Your task to perform on an android device: toggle javascript in the chrome app Image 0: 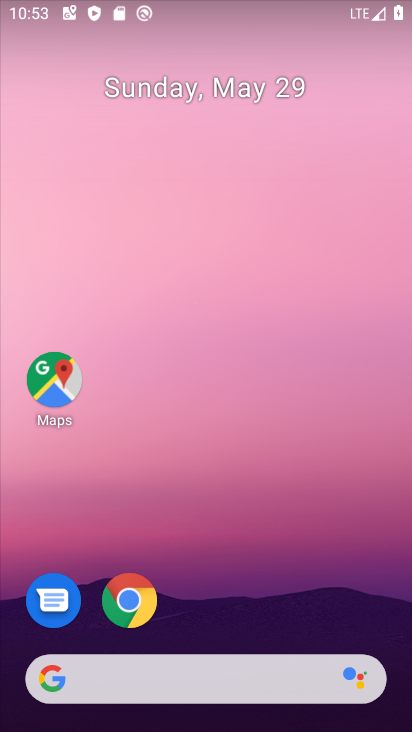
Step 0: click (152, 606)
Your task to perform on an android device: toggle javascript in the chrome app Image 1: 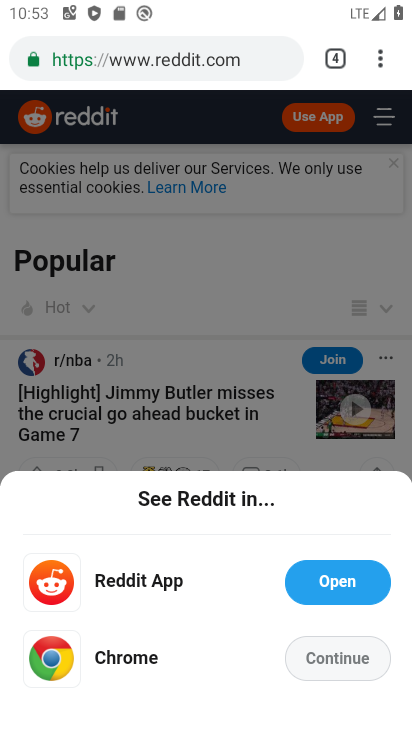
Step 1: drag from (380, 46) to (193, 622)
Your task to perform on an android device: toggle javascript in the chrome app Image 2: 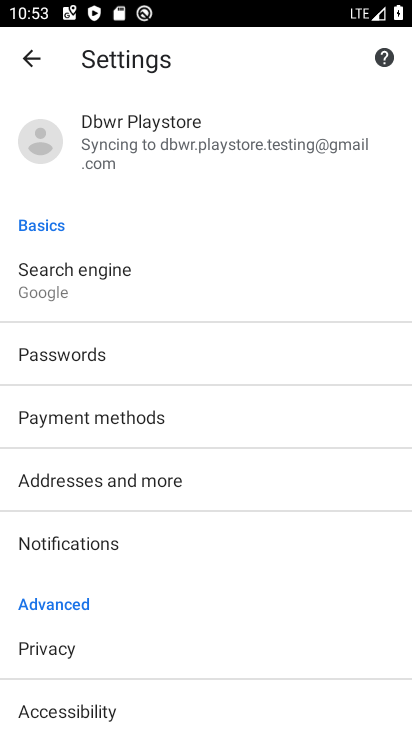
Step 2: drag from (99, 660) to (196, 298)
Your task to perform on an android device: toggle javascript in the chrome app Image 3: 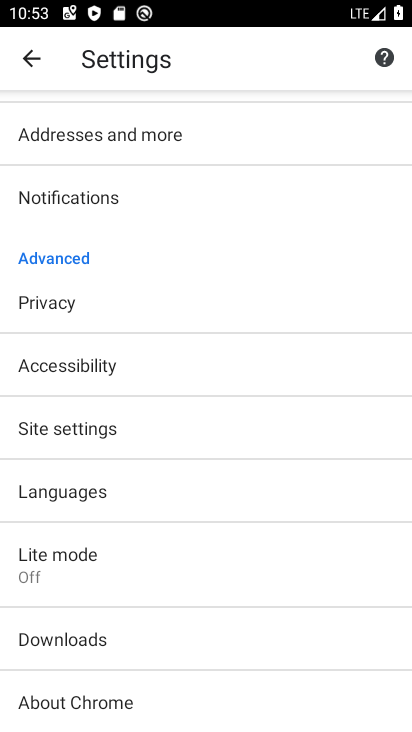
Step 3: click (111, 435)
Your task to perform on an android device: toggle javascript in the chrome app Image 4: 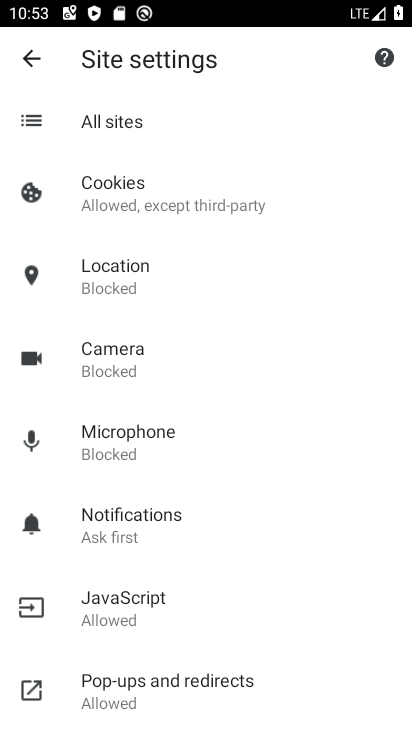
Step 4: click (114, 596)
Your task to perform on an android device: toggle javascript in the chrome app Image 5: 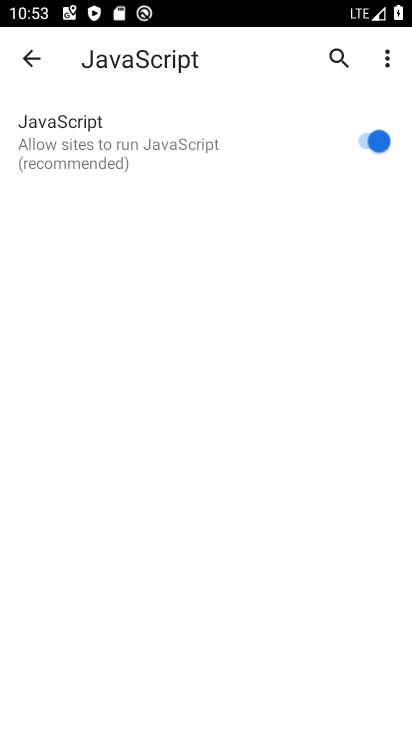
Step 5: click (283, 133)
Your task to perform on an android device: toggle javascript in the chrome app Image 6: 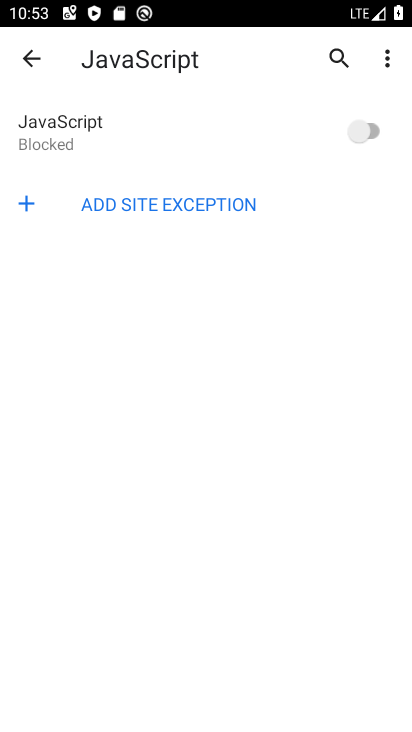
Step 6: task complete